Your task to perform on an android device: Go to eBay Image 0: 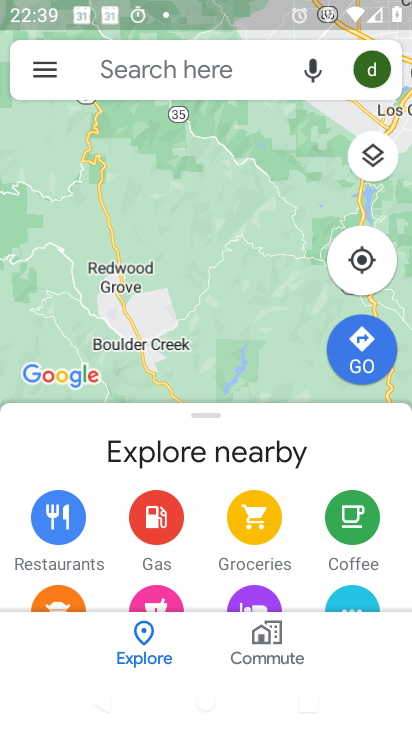
Step 0: press home button
Your task to perform on an android device: Go to eBay Image 1: 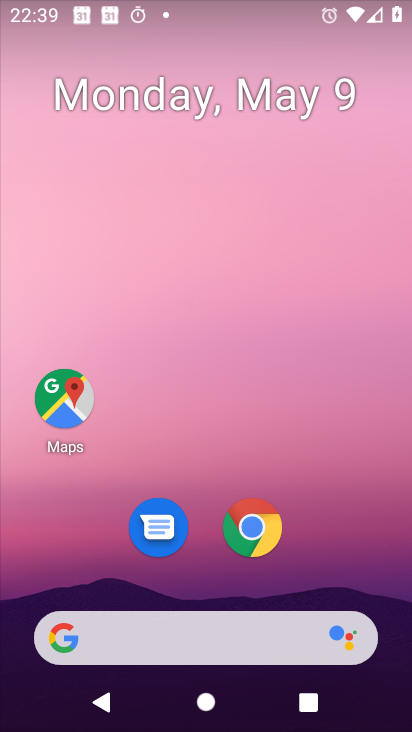
Step 1: drag from (202, 571) to (254, 78)
Your task to perform on an android device: Go to eBay Image 2: 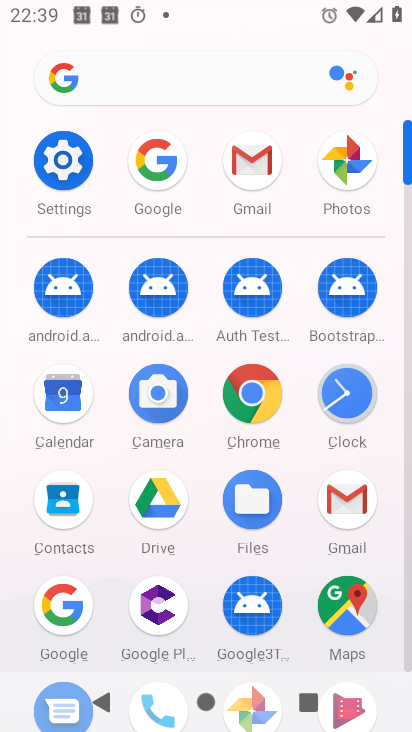
Step 2: click (66, 604)
Your task to perform on an android device: Go to eBay Image 3: 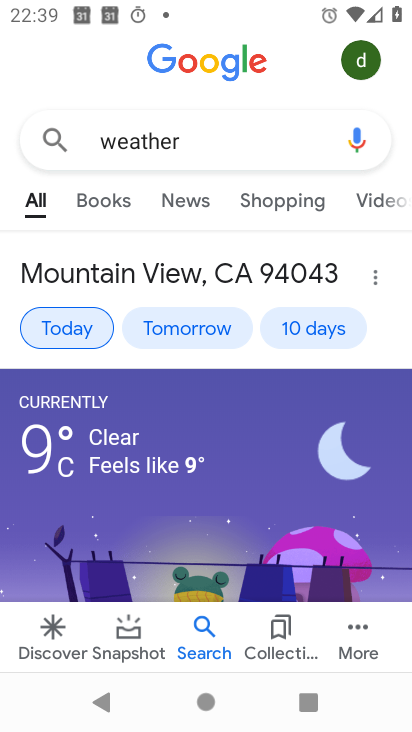
Step 3: click (210, 133)
Your task to perform on an android device: Go to eBay Image 4: 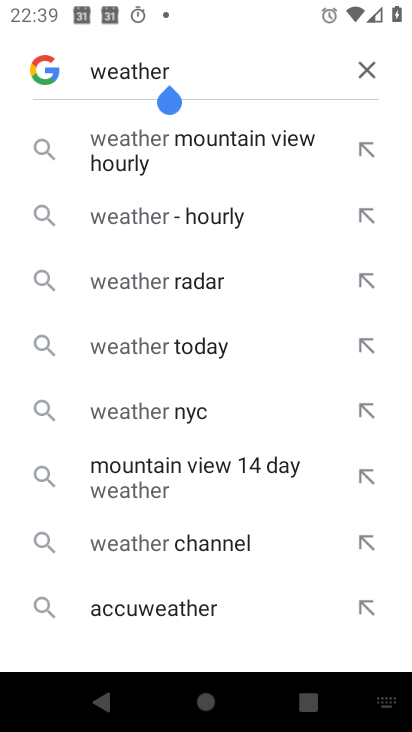
Step 4: click (362, 74)
Your task to perform on an android device: Go to eBay Image 5: 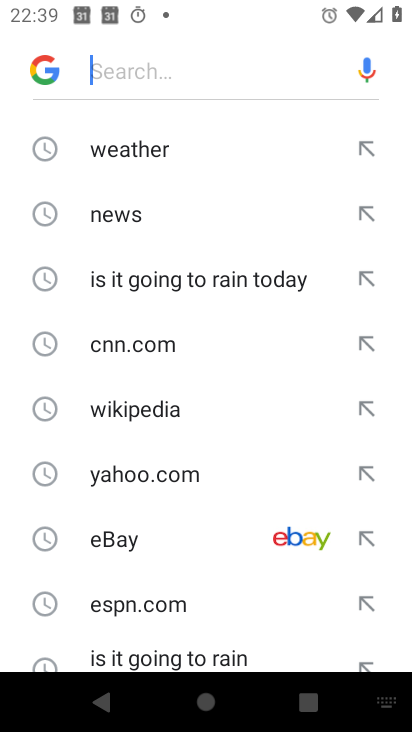
Step 5: click (136, 538)
Your task to perform on an android device: Go to eBay Image 6: 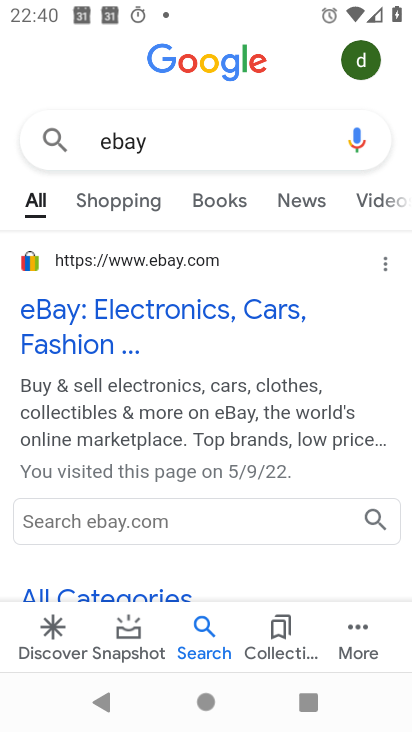
Step 6: task complete